Your task to perform on an android device: toggle translation in the chrome app Image 0: 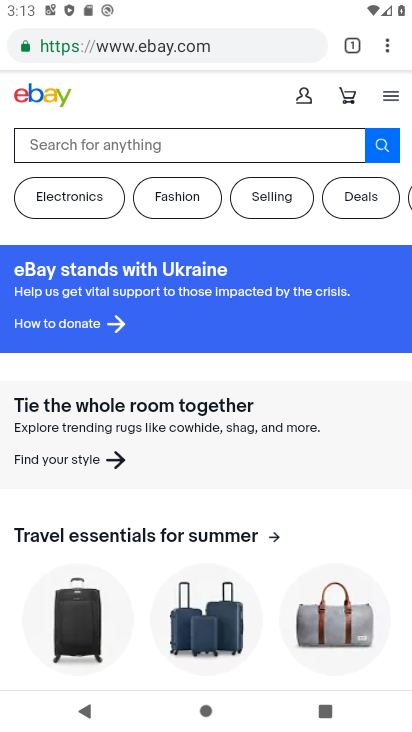
Step 0: drag from (391, 52) to (295, 565)
Your task to perform on an android device: toggle translation in the chrome app Image 1: 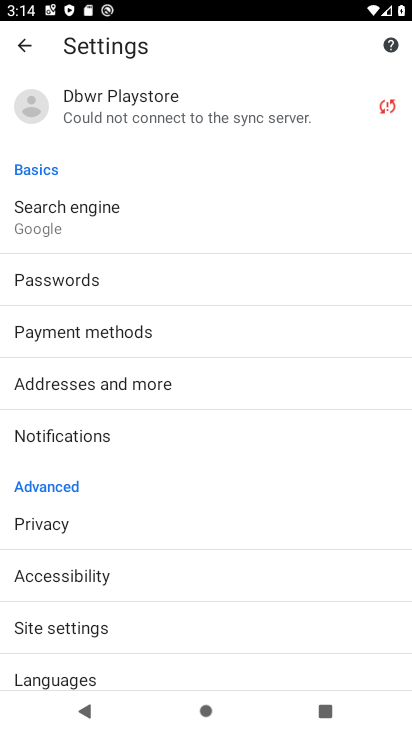
Step 1: drag from (215, 640) to (278, 396)
Your task to perform on an android device: toggle translation in the chrome app Image 2: 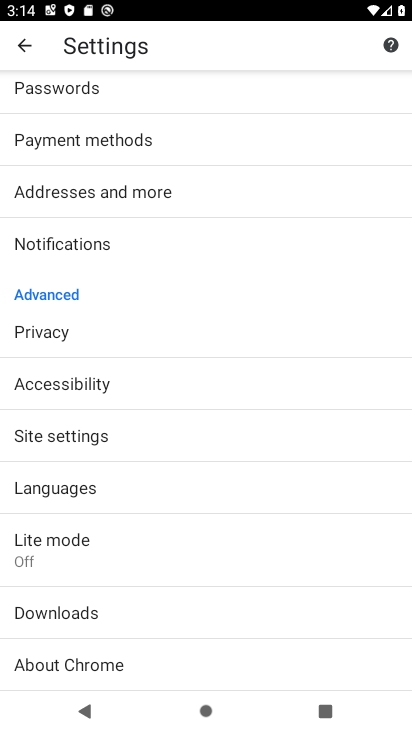
Step 2: click (139, 486)
Your task to perform on an android device: toggle translation in the chrome app Image 3: 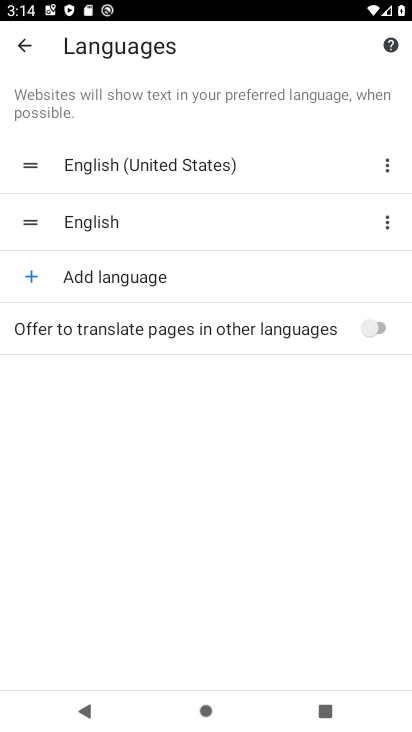
Step 3: click (397, 330)
Your task to perform on an android device: toggle translation in the chrome app Image 4: 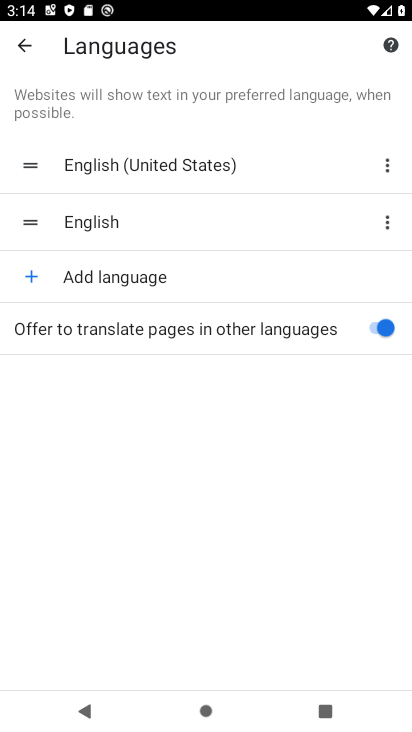
Step 4: task complete